Your task to perform on an android device: find snoozed emails in the gmail app Image 0: 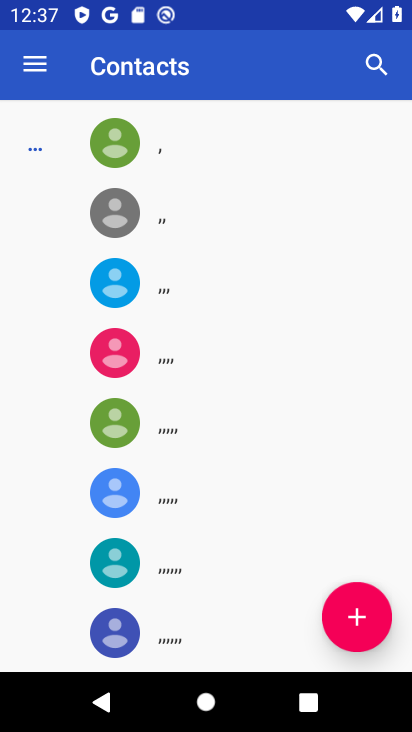
Step 0: press home button
Your task to perform on an android device: find snoozed emails in the gmail app Image 1: 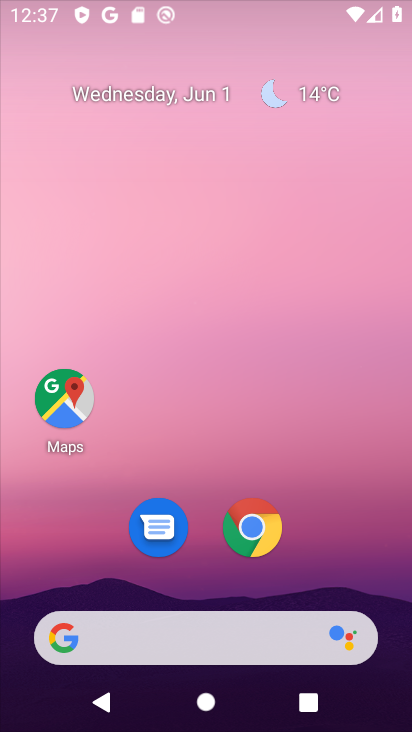
Step 1: drag from (217, 579) to (257, 91)
Your task to perform on an android device: find snoozed emails in the gmail app Image 2: 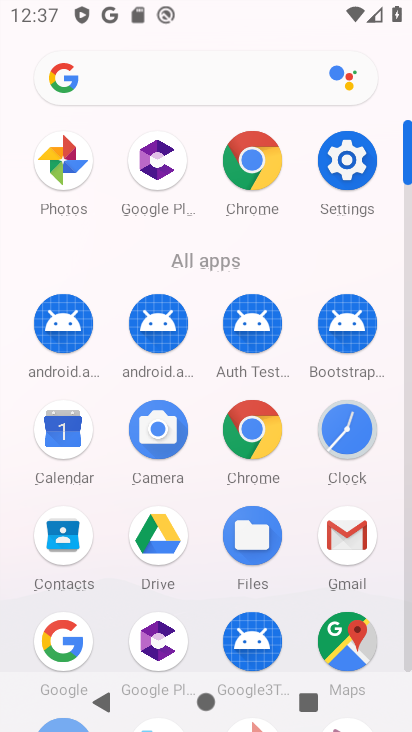
Step 2: click (325, 545)
Your task to perform on an android device: find snoozed emails in the gmail app Image 3: 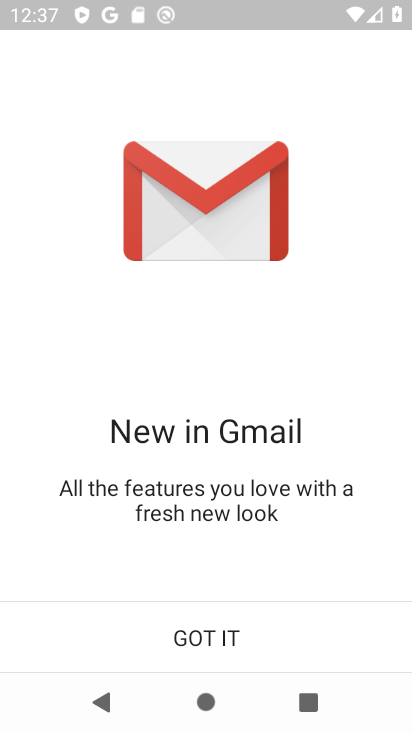
Step 3: click (220, 632)
Your task to perform on an android device: find snoozed emails in the gmail app Image 4: 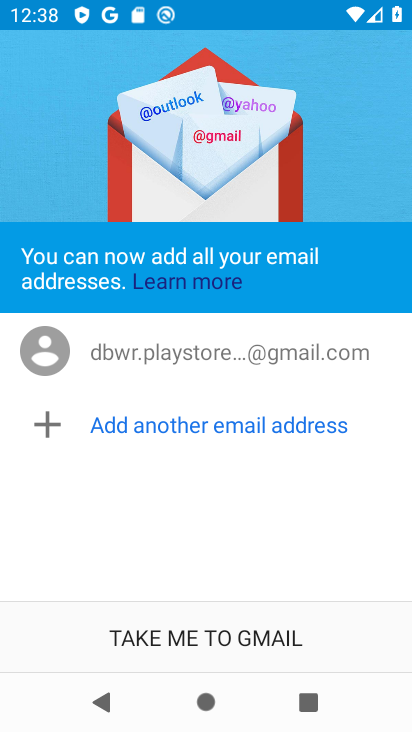
Step 4: click (198, 640)
Your task to perform on an android device: find snoozed emails in the gmail app Image 5: 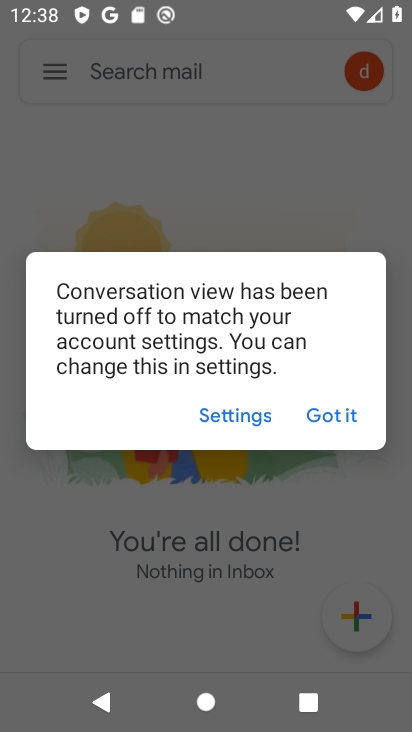
Step 5: click (346, 416)
Your task to perform on an android device: find snoozed emails in the gmail app Image 6: 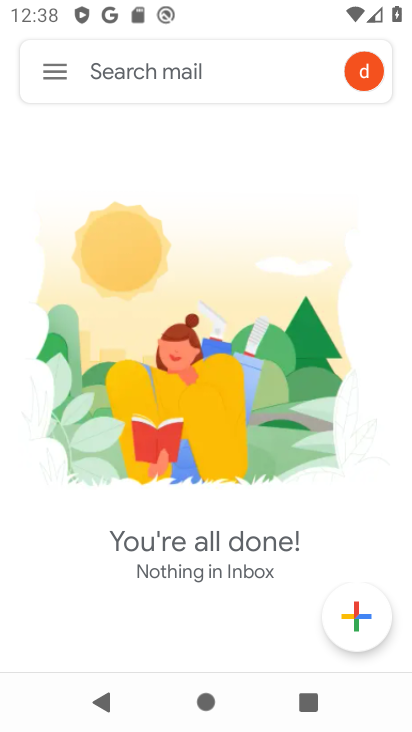
Step 6: click (42, 81)
Your task to perform on an android device: find snoozed emails in the gmail app Image 7: 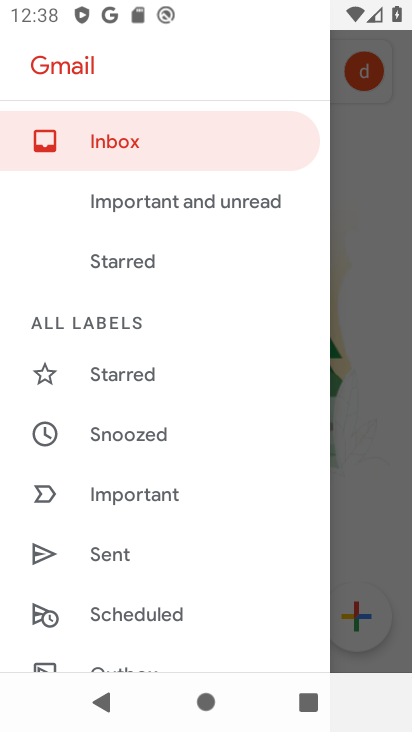
Step 7: drag from (127, 517) to (147, 434)
Your task to perform on an android device: find snoozed emails in the gmail app Image 8: 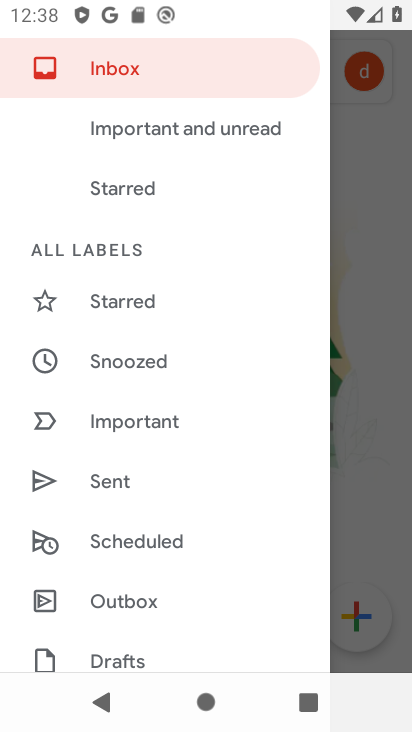
Step 8: click (152, 365)
Your task to perform on an android device: find snoozed emails in the gmail app Image 9: 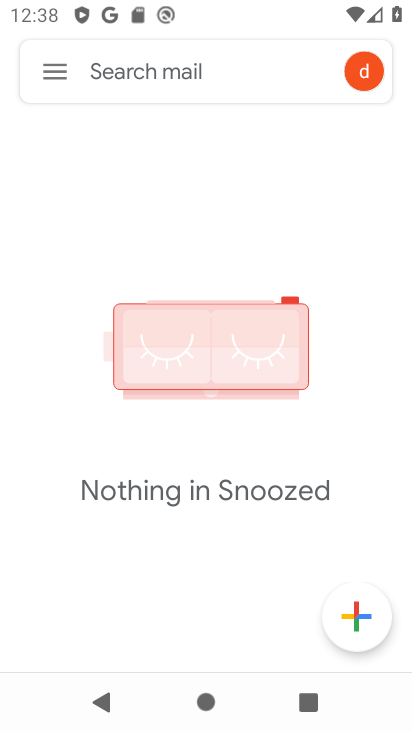
Step 9: task complete